Your task to perform on an android device: find which apps use the phone's location Image 0: 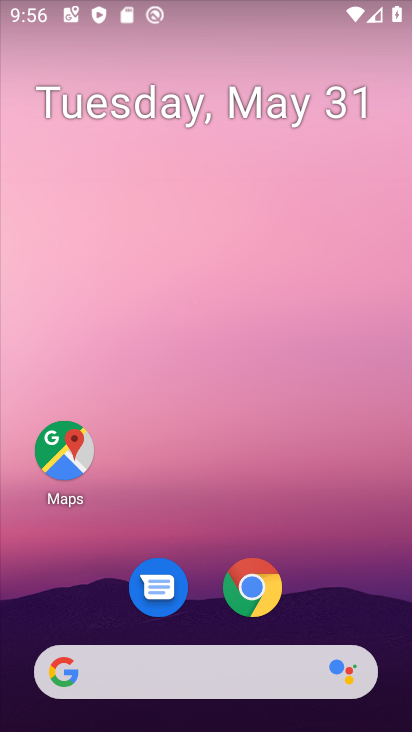
Step 0: press home button
Your task to perform on an android device: find which apps use the phone's location Image 1: 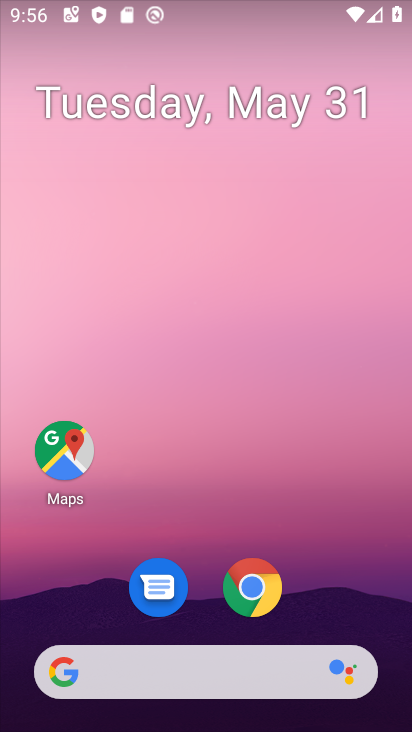
Step 1: drag from (210, 620) to (206, 209)
Your task to perform on an android device: find which apps use the phone's location Image 2: 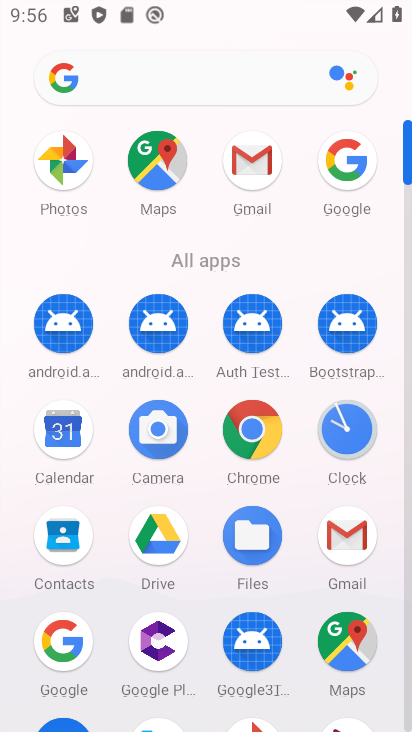
Step 2: drag from (203, 601) to (200, 92)
Your task to perform on an android device: find which apps use the phone's location Image 3: 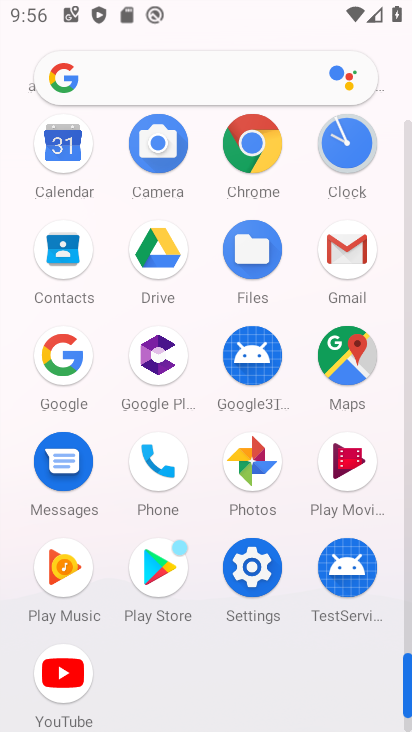
Step 3: click (251, 564)
Your task to perform on an android device: find which apps use the phone's location Image 4: 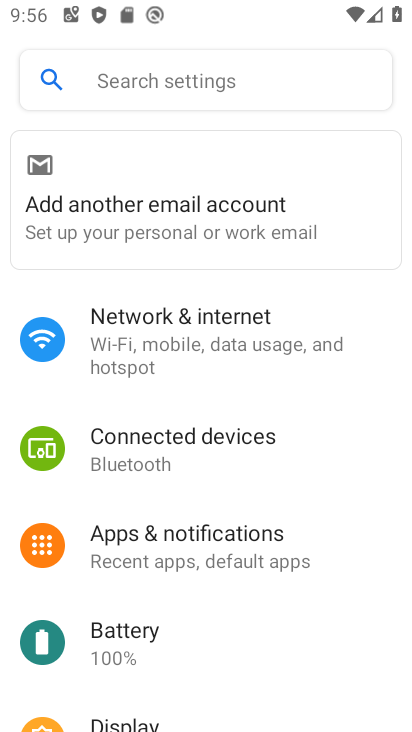
Step 4: drag from (212, 699) to (211, 97)
Your task to perform on an android device: find which apps use the phone's location Image 5: 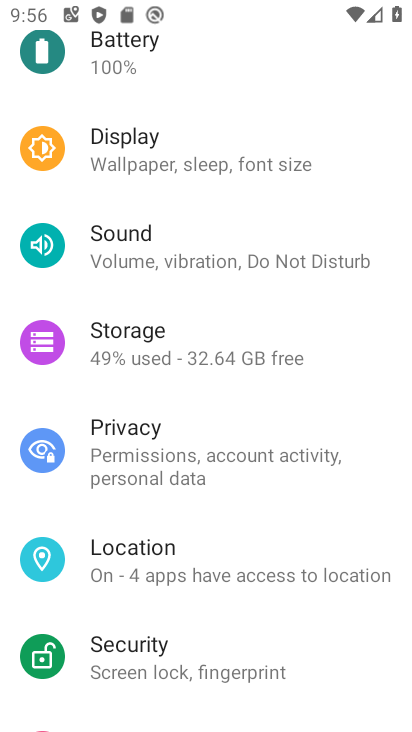
Step 5: click (153, 561)
Your task to perform on an android device: find which apps use the phone's location Image 6: 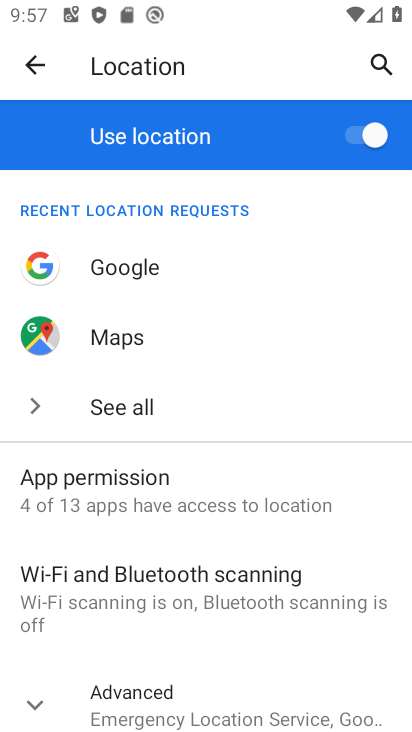
Step 6: click (170, 493)
Your task to perform on an android device: find which apps use the phone's location Image 7: 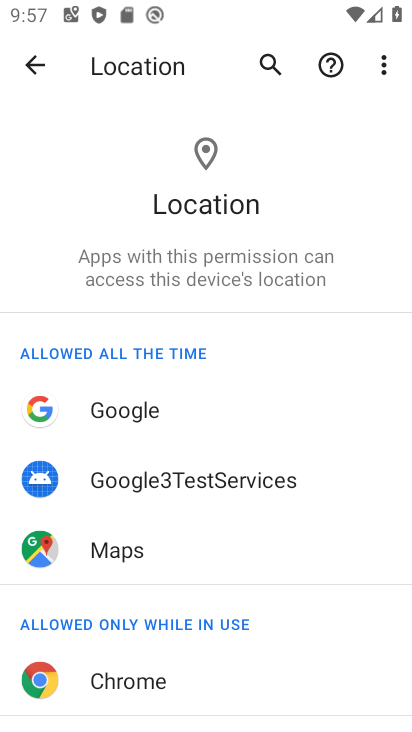
Step 7: task complete